Your task to perform on an android device: Turn on the flashlight Image 0: 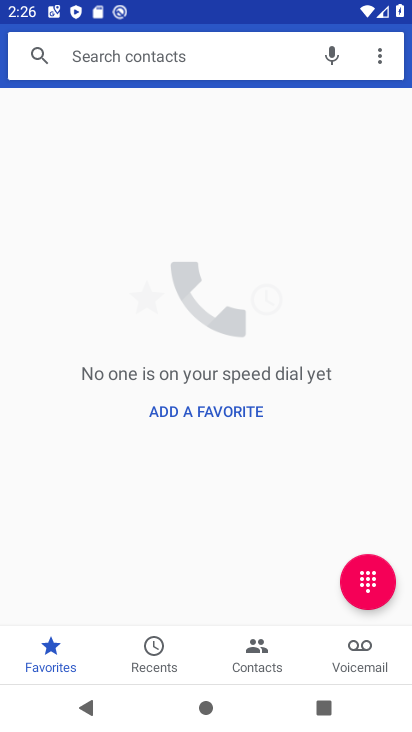
Step 0: press home button
Your task to perform on an android device: Turn on the flashlight Image 1: 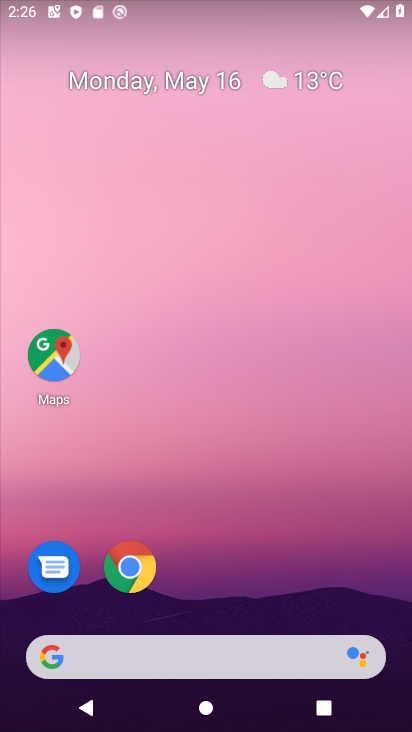
Step 1: drag from (206, 266) to (226, 41)
Your task to perform on an android device: Turn on the flashlight Image 2: 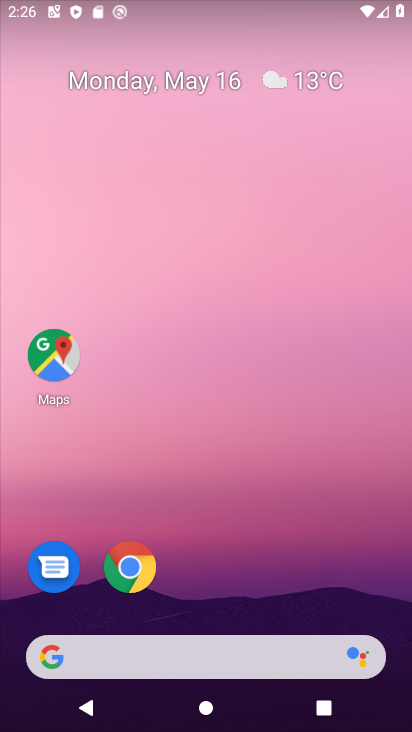
Step 2: drag from (305, 573) to (277, 78)
Your task to perform on an android device: Turn on the flashlight Image 3: 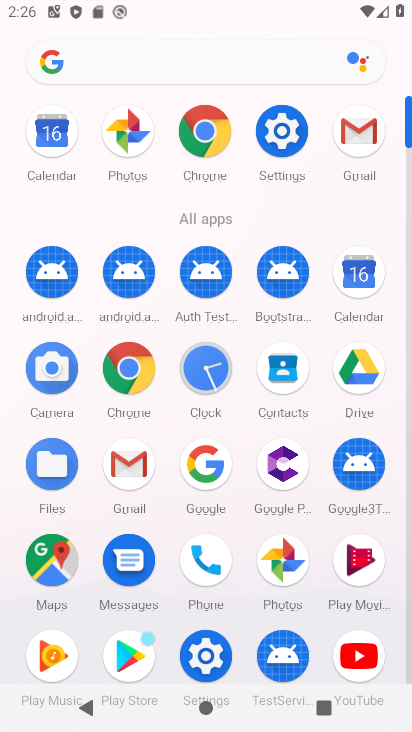
Step 3: click (282, 130)
Your task to perform on an android device: Turn on the flashlight Image 4: 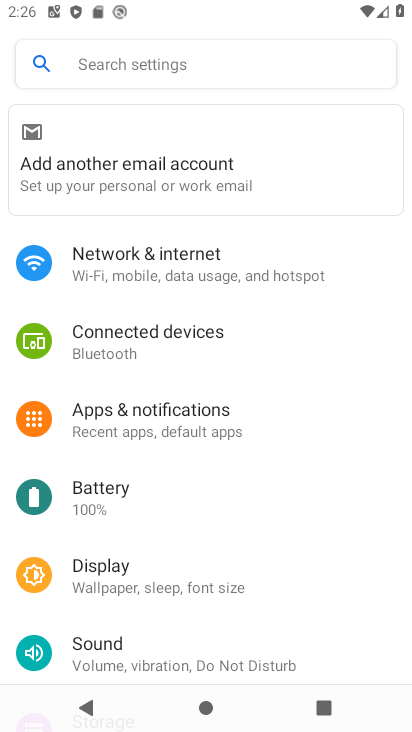
Step 4: click (184, 602)
Your task to perform on an android device: Turn on the flashlight Image 5: 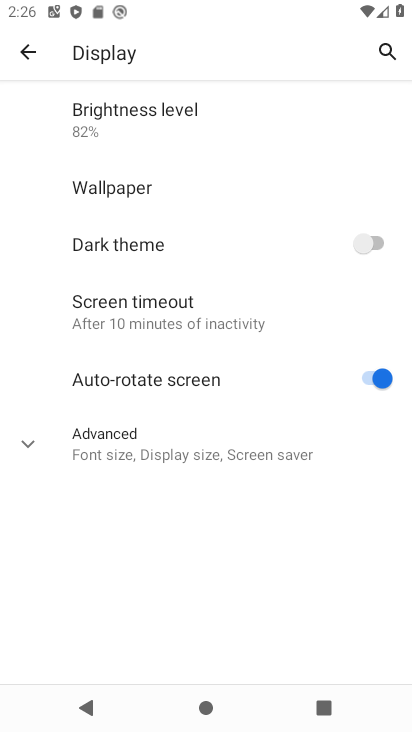
Step 5: task complete